Your task to perform on an android device: toggle improve location accuracy Image 0: 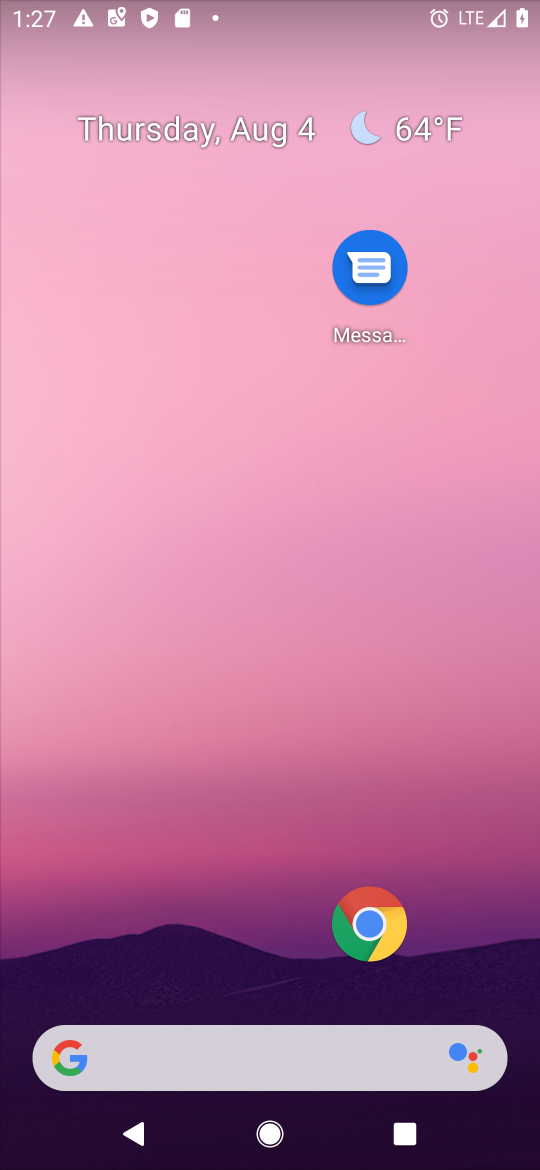
Step 0: drag from (11, 1118) to (71, 1093)
Your task to perform on an android device: toggle improve location accuracy Image 1: 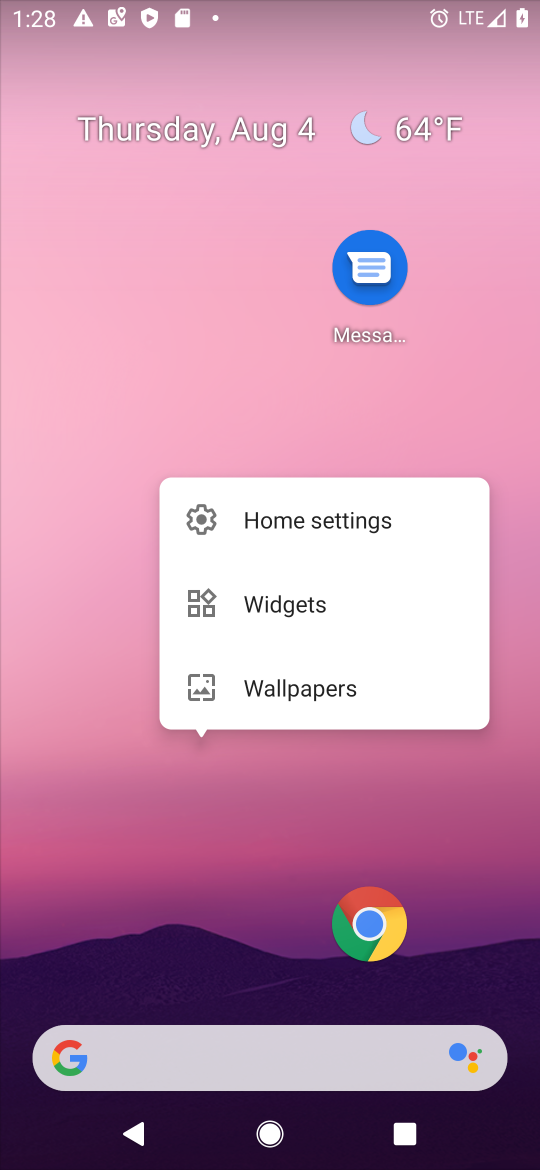
Step 1: drag from (227, 658) to (269, 46)
Your task to perform on an android device: toggle improve location accuracy Image 2: 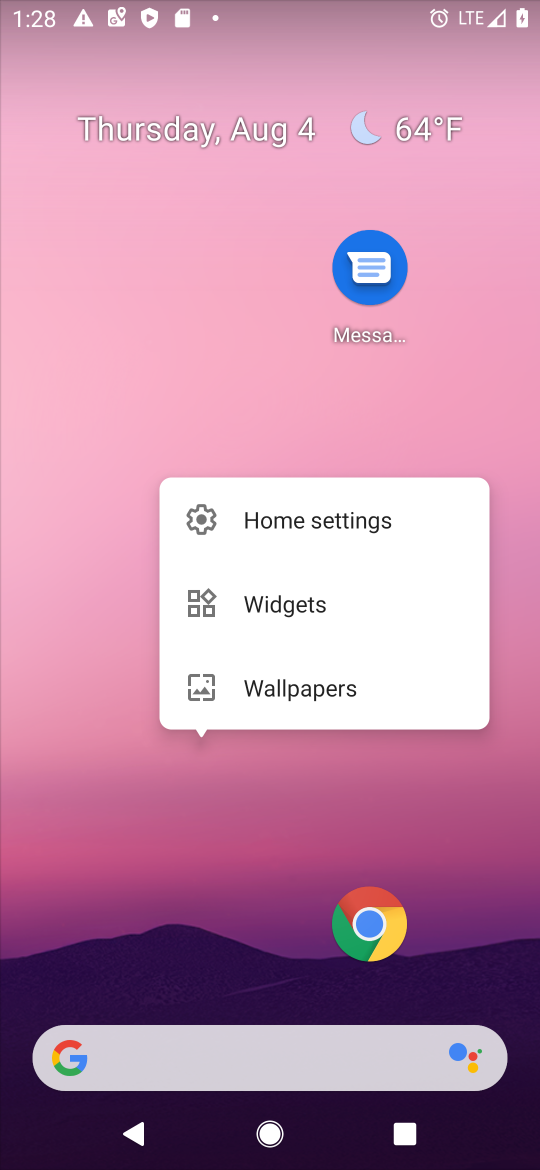
Step 2: drag from (35, 1148) to (278, 12)
Your task to perform on an android device: toggle improve location accuracy Image 3: 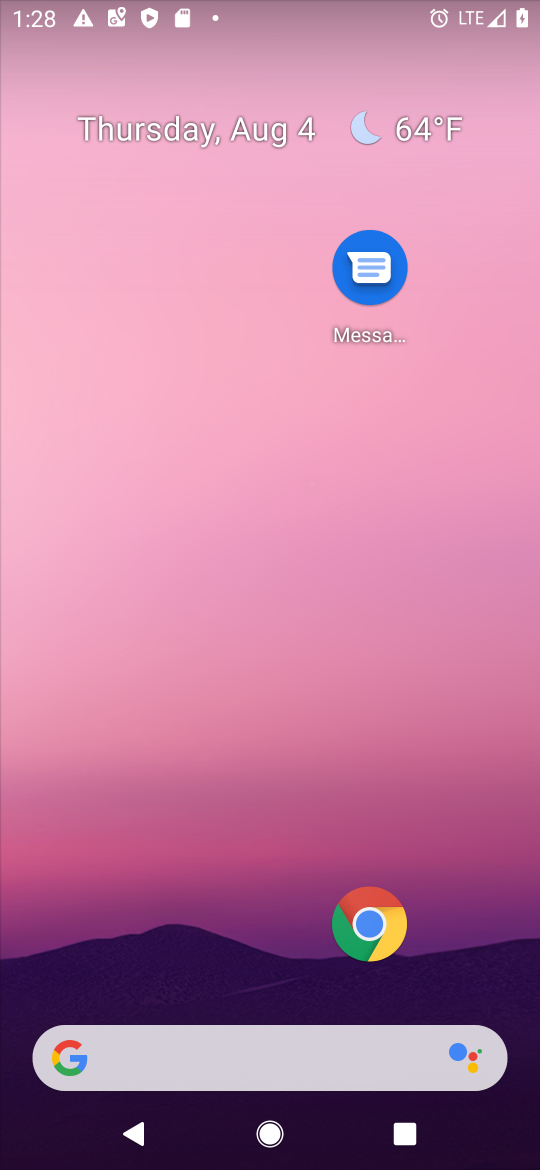
Step 3: drag from (64, 1104) to (217, 245)
Your task to perform on an android device: toggle improve location accuracy Image 4: 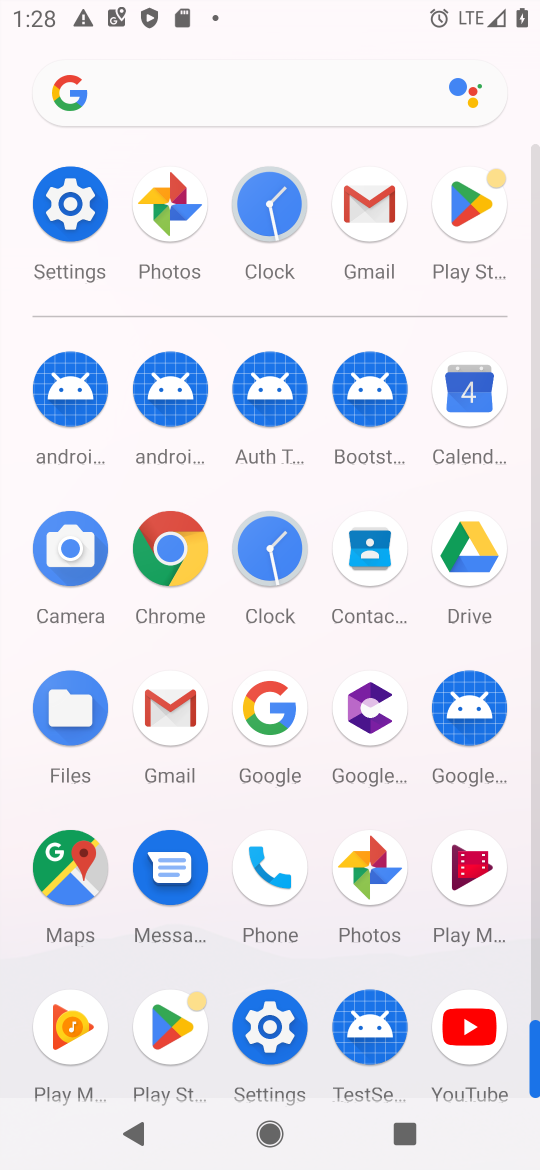
Step 4: click (273, 1022)
Your task to perform on an android device: toggle improve location accuracy Image 5: 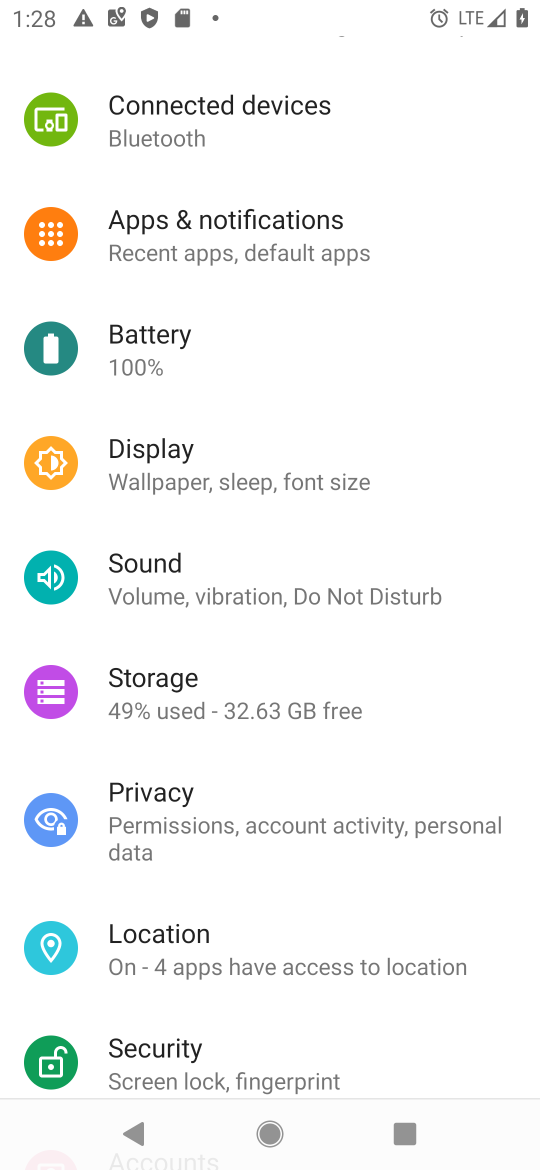
Step 5: click (164, 958)
Your task to perform on an android device: toggle improve location accuracy Image 6: 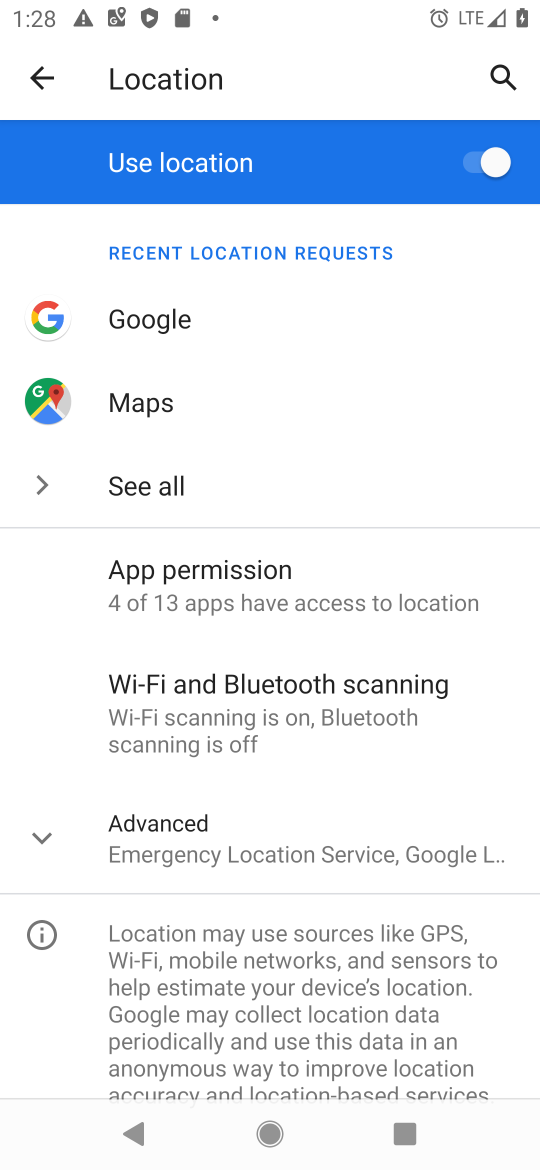
Step 6: click (196, 830)
Your task to perform on an android device: toggle improve location accuracy Image 7: 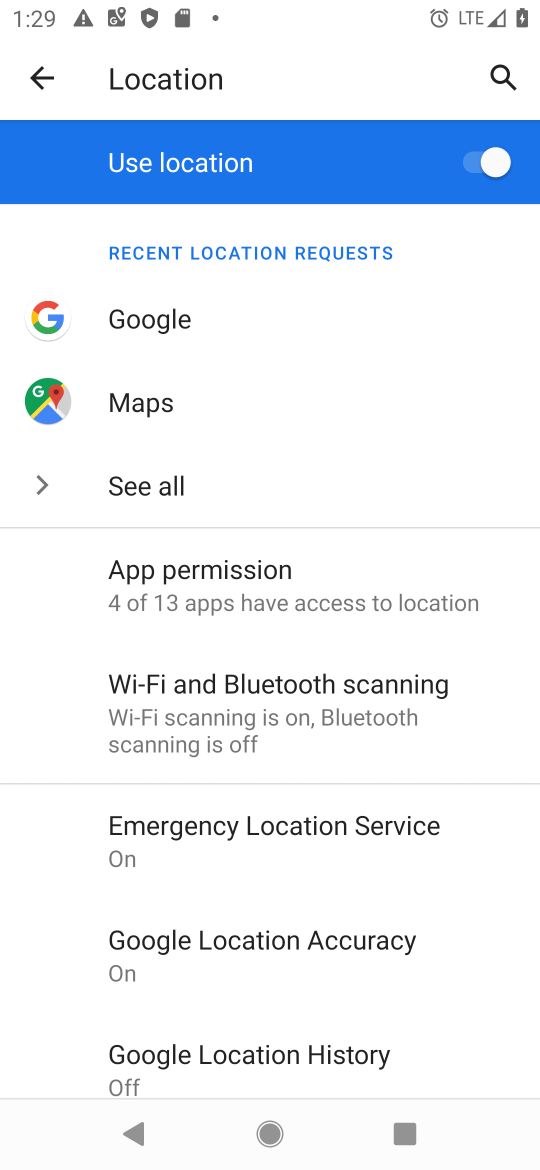
Step 7: task complete